Your task to perform on an android device: Go to Google maps Image 0: 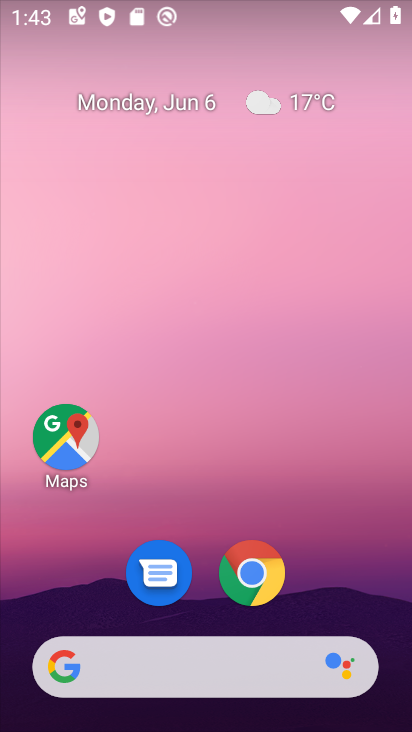
Step 0: click (54, 427)
Your task to perform on an android device: Go to Google maps Image 1: 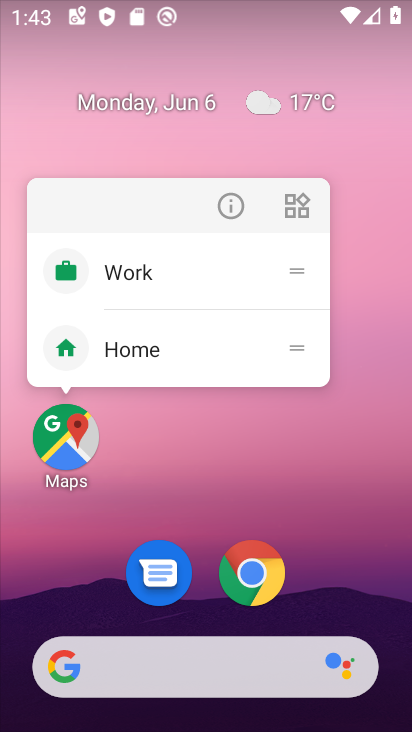
Step 1: click (46, 437)
Your task to perform on an android device: Go to Google maps Image 2: 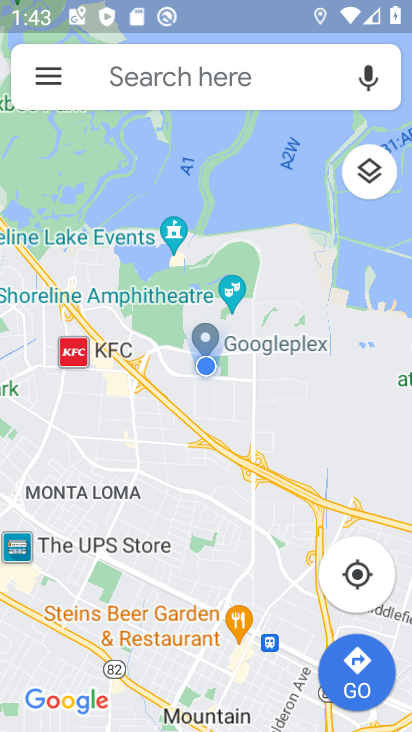
Step 2: task complete